Your task to perform on an android device: What's the weather? Image 0: 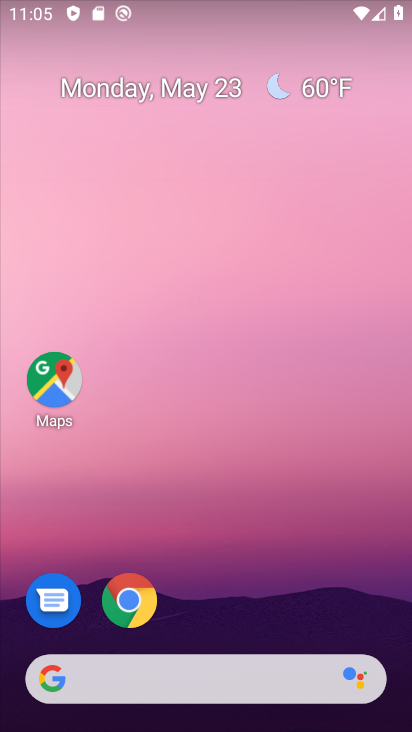
Step 0: press home button
Your task to perform on an android device: What's the weather? Image 1: 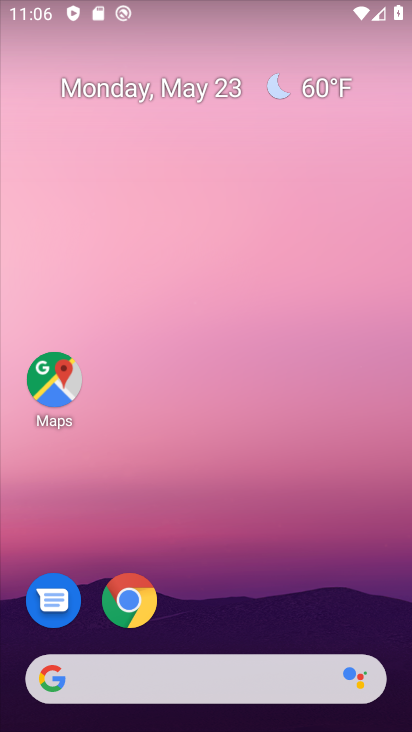
Step 1: click (182, 685)
Your task to perform on an android device: What's the weather? Image 2: 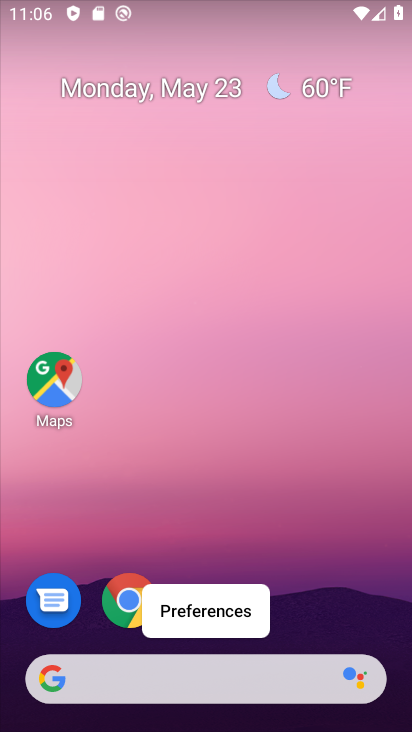
Step 2: click (182, 684)
Your task to perform on an android device: What's the weather? Image 3: 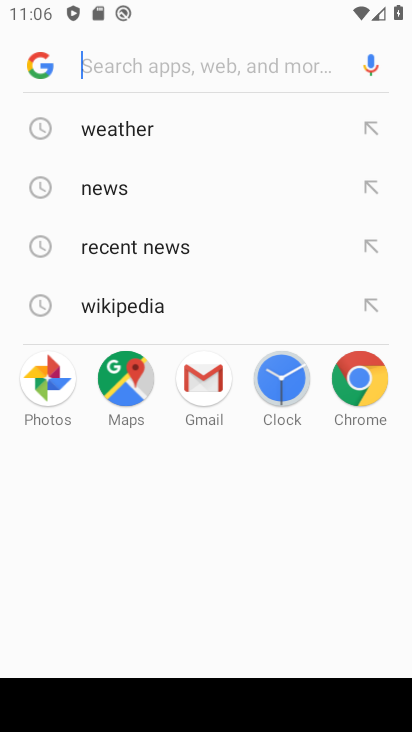
Step 3: click (117, 138)
Your task to perform on an android device: What's the weather? Image 4: 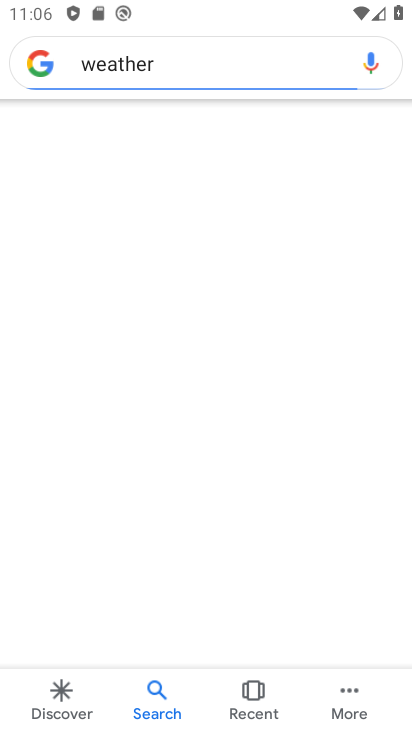
Step 4: task complete